Your task to perform on an android device: turn vacation reply on in the gmail app Image 0: 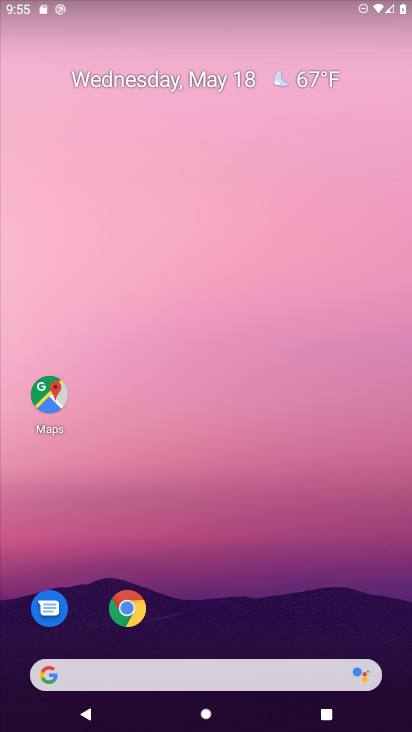
Step 0: drag from (219, 598) to (228, 139)
Your task to perform on an android device: turn vacation reply on in the gmail app Image 1: 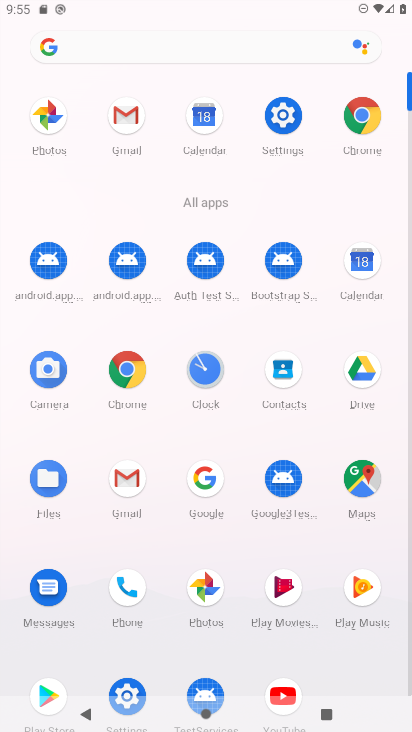
Step 1: click (134, 484)
Your task to perform on an android device: turn vacation reply on in the gmail app Image 2: 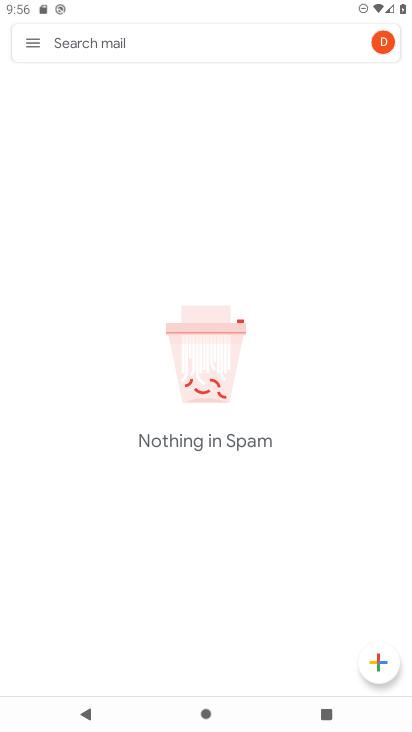
Step 2: click (42, 49)
Your task to perform on an android device: turn vacation reply on in the gmail app Image 3: 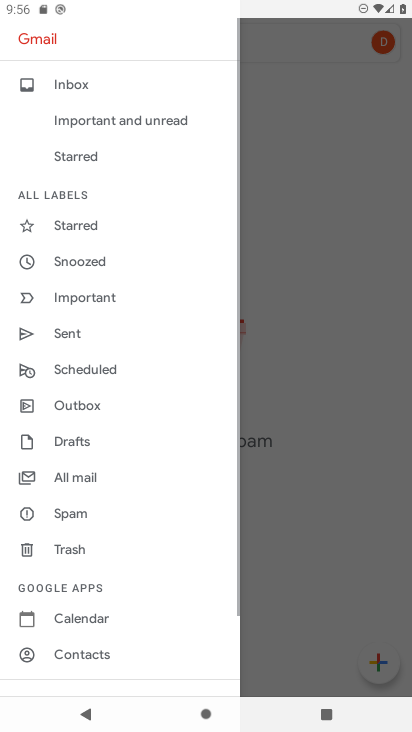
Step 3: drag from (79, 618) to (113, 431)
Your task to perform on an android device: turn vacation reply on in the gmail app Image 4: 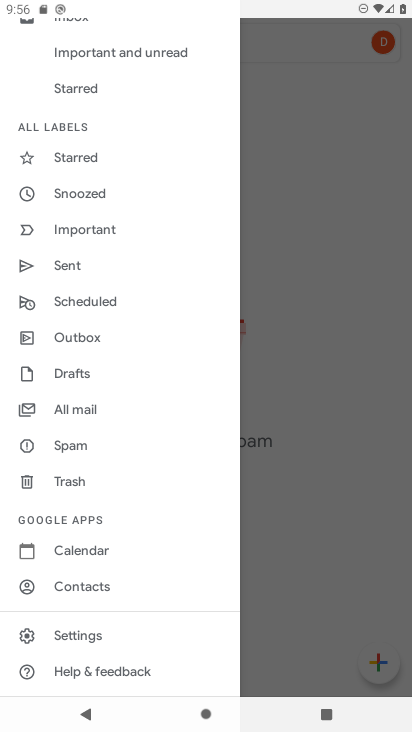
Step 4: click (87, 641)
Your task to perform on an android device: turn vacation reply on in the gmail app Image 5: 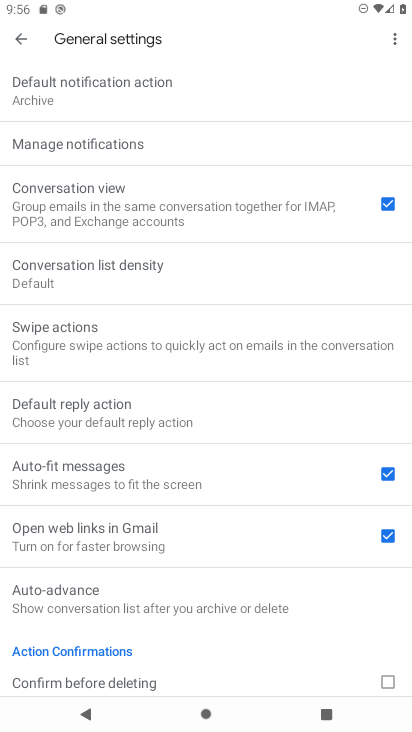
Step 5: click (8, 35)
Your task to perform on an android device: turn vacation reply on in the gmail app Image 6: 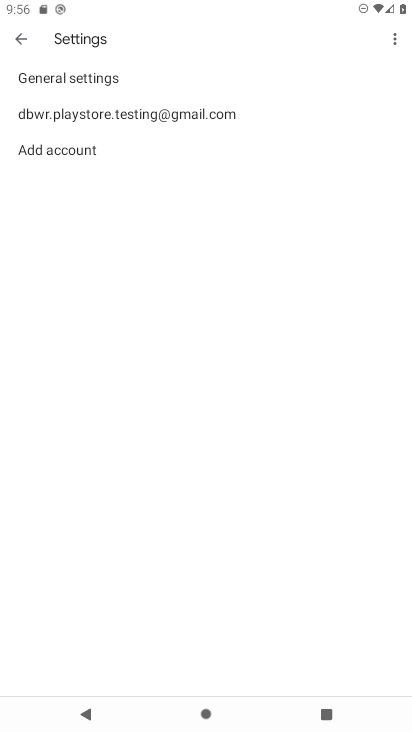
Step 6: click (58, 123)
Your task to perform on an android device: turn vacation reply on in the gmail app Image 7: 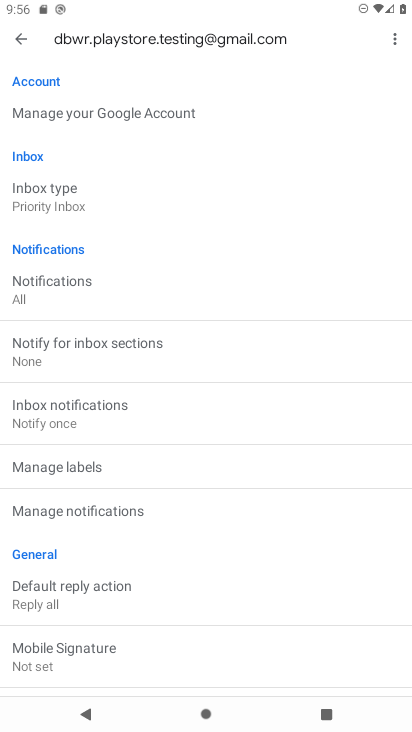
Step 7: drag from (103, 589) to (165, 353)
Your task to perform on an android device: turn vacation reply on in the gmail app Image 8: 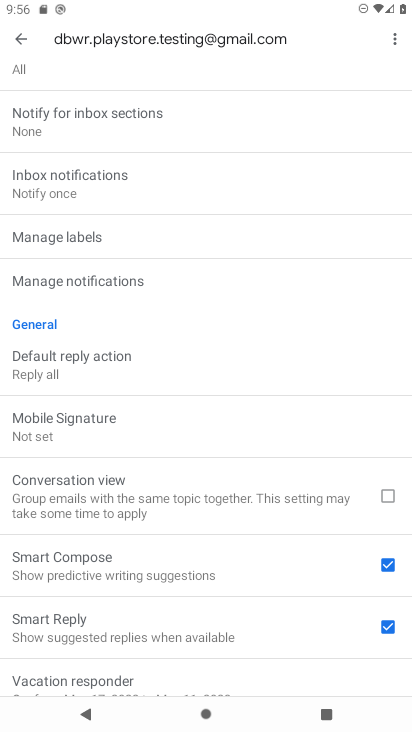
Step 8: drag from (203, 617) to (220, 540)
Your task to perform on an android device: turn vacation reply on in the gmail app Image 9: 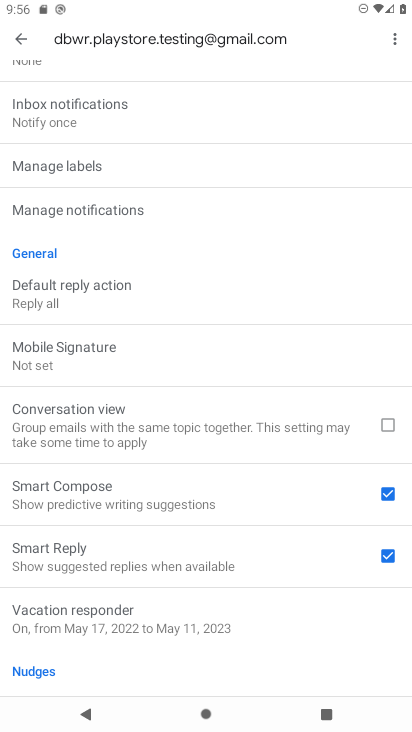
Step 9: click (154, 634)
Your task to perform on an android device: turn vacation reply on in the gmail app Image 10: 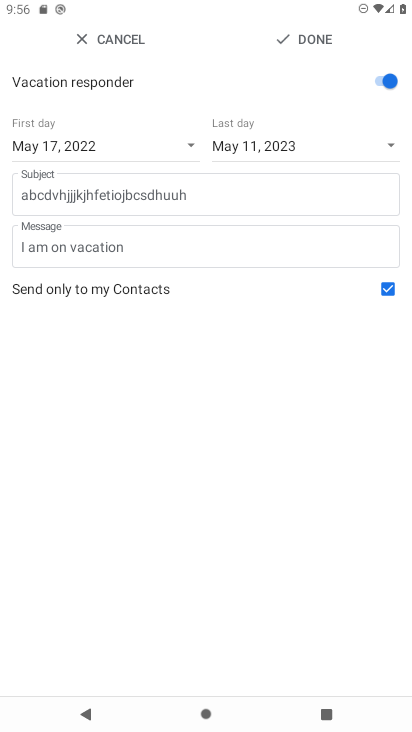
Step 10: task complete